Your task to perform on an android device: turn on wifi Image 0: 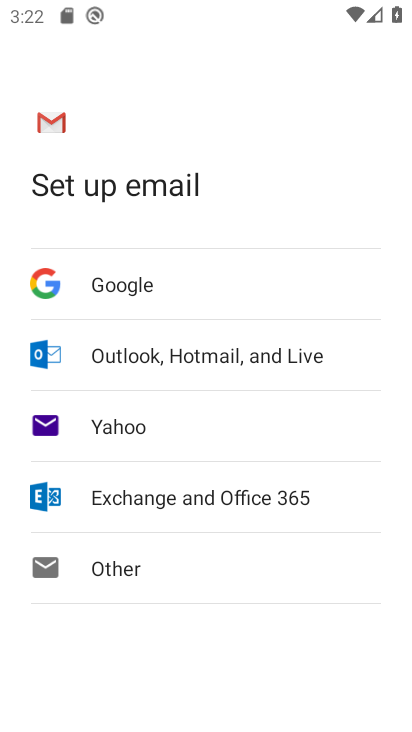
Step 0: press home button
Your task to perform on an android device: turn on wifi Image 1: 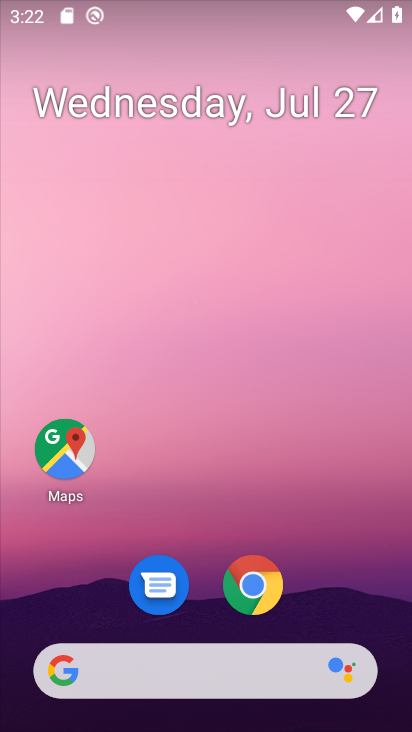
Step 1: drag from (195, 490) to (232, 44)
Your task to perform on an android device: turn on wifi Image 2: 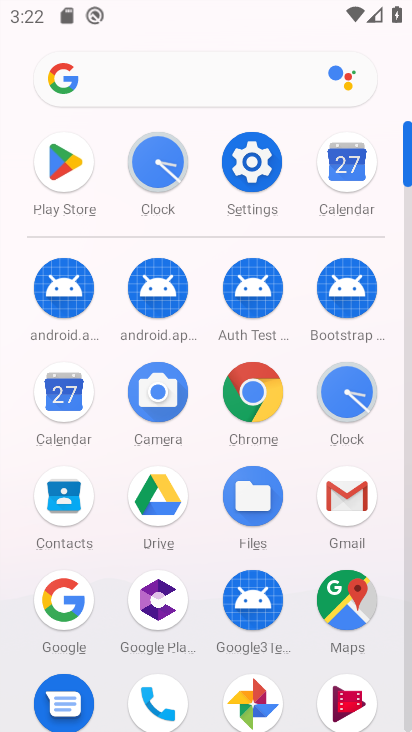
Step 2: click (255, 154)
Your task to perform on an android device: turn on wifi Image 3: 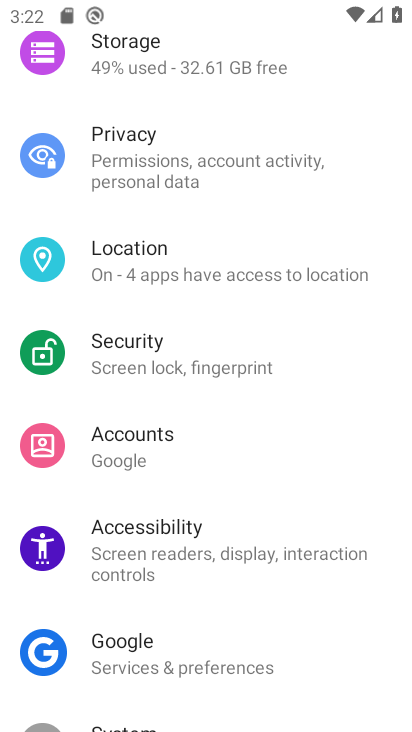
Step 3: drag from (226, 125) to (277, 639)
Your task to perform on an android device: turn on wifi Image 4: 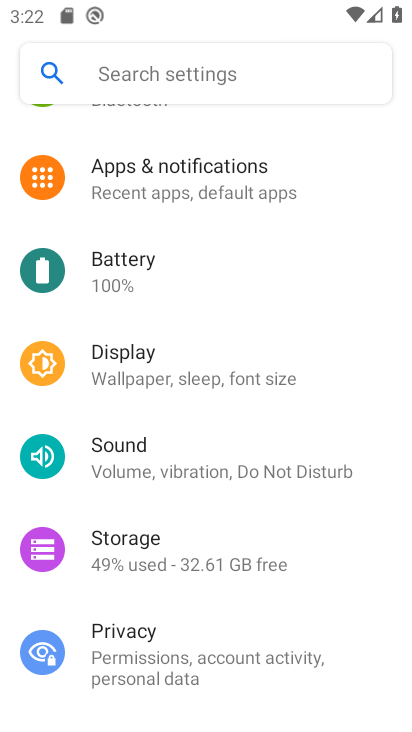
Step 4: drag from (201, 248) to (221, 632)
Your task to perform on an android device: turn on wifi Image 5: 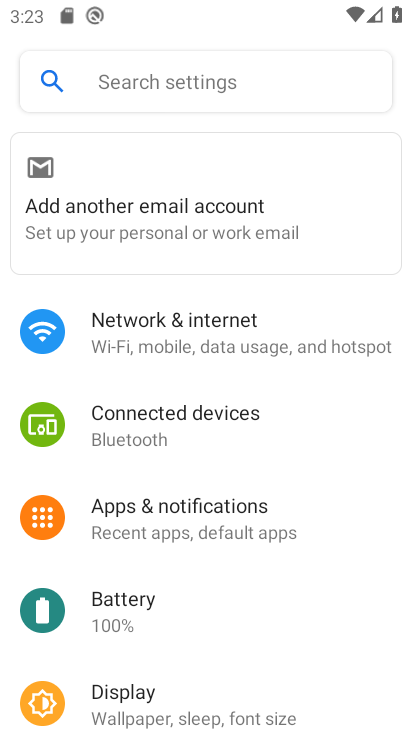
Step 5: click (191, 330)
Your task to perform on an android device: turn on wifi Image 6: 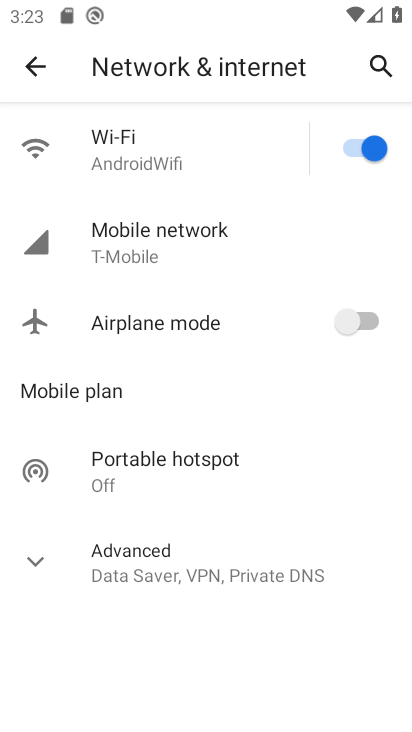
Step 6: task complete